Your task to perform on an android device: turn notification dots on Image 0: 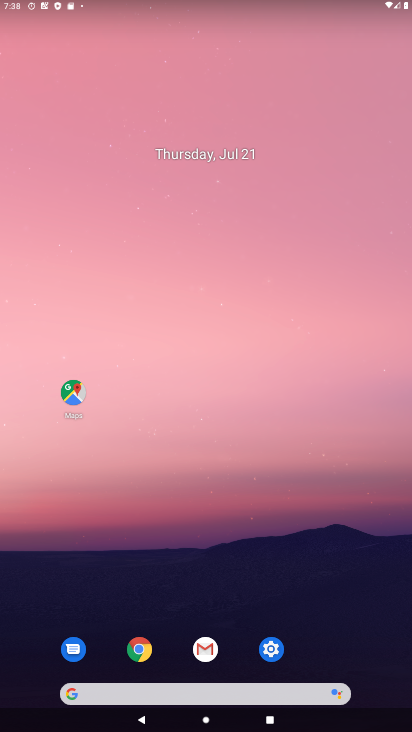
Step 0: click (278, 648)
Your task to perform on an android device: turn notification dots on Image 1: 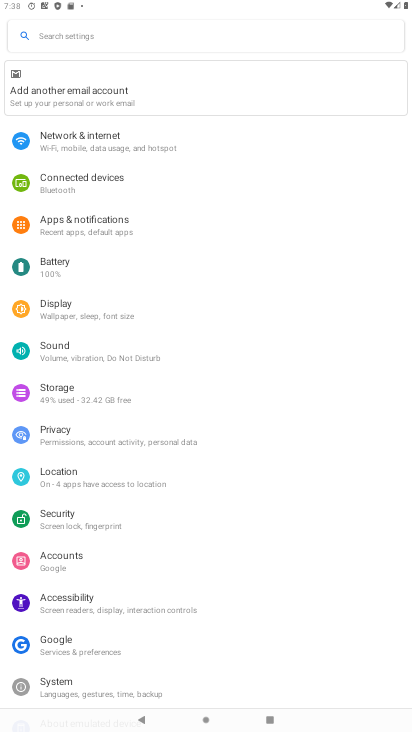
Step 1: click (75, 41)
Your task to perform on an android device: turn notification dots on Image 2: 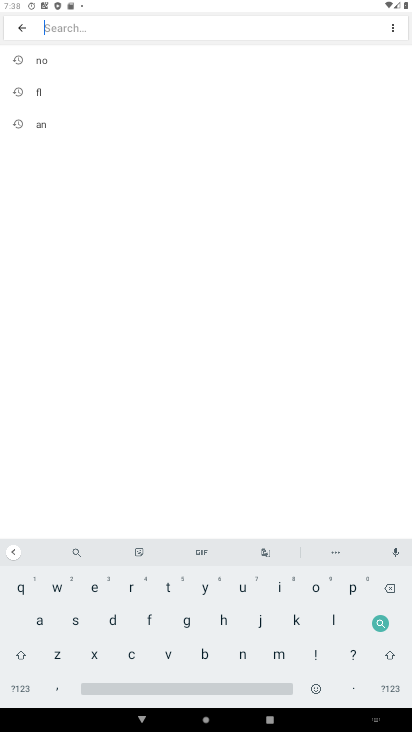
Step 2: click (241, 658)
Your task to perform on an android device: turn notification dots on Image 3: 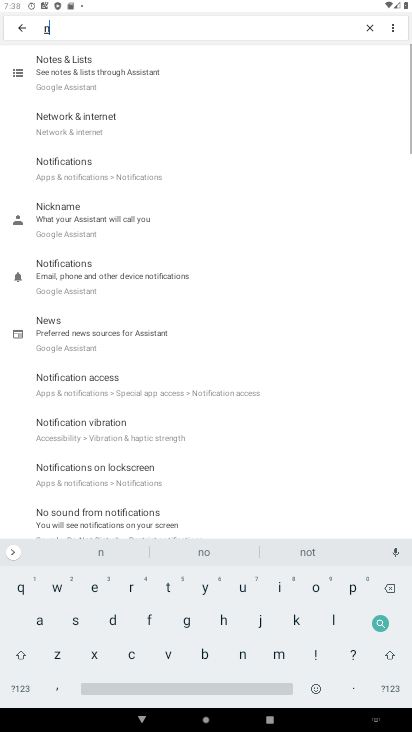
Step 3: click (314, 581)
Your task to perform on an android device: turn notification dots on Image 4: 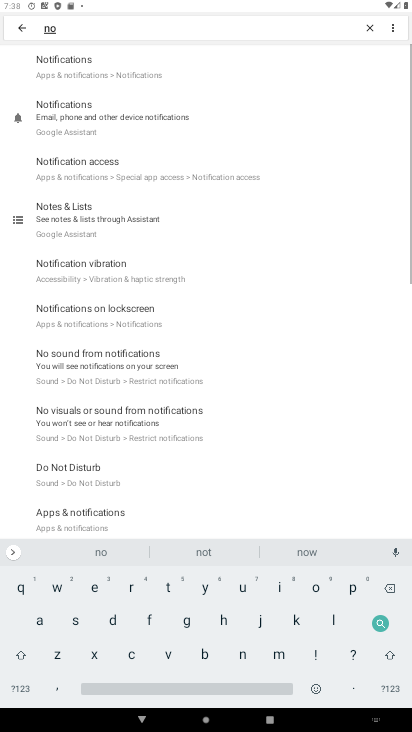
Step 4: click (91, 81)
Your task to perform on an android device: turn notification dots on Image 5: 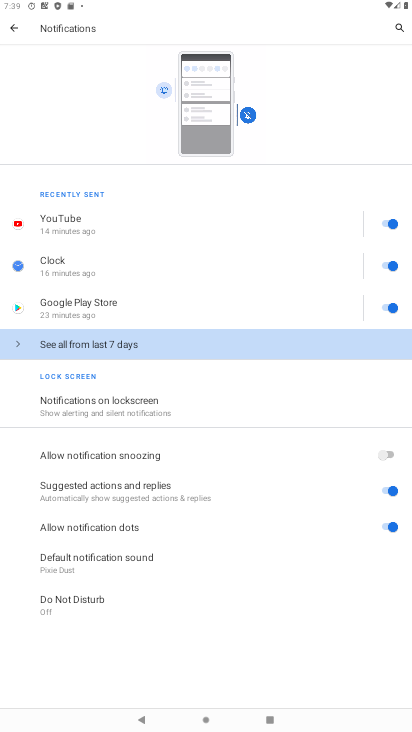
Step 5: click (229, 525)
Your task to perform on an android device: turn notification dots on Image 6: 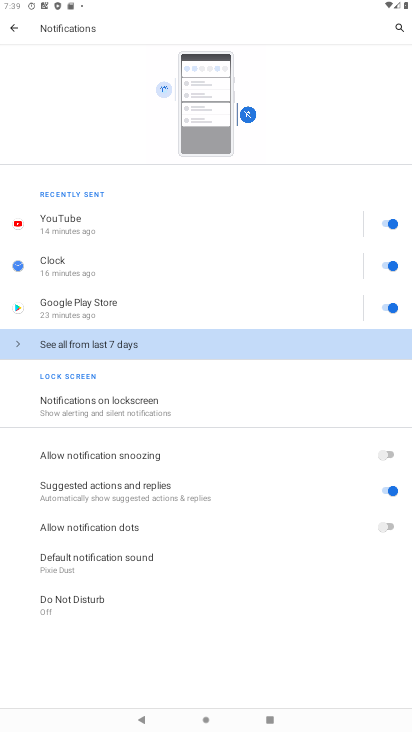
Step 6: click (229, 525)
Your task to perform on an android device: turn notification dots on Image 7: 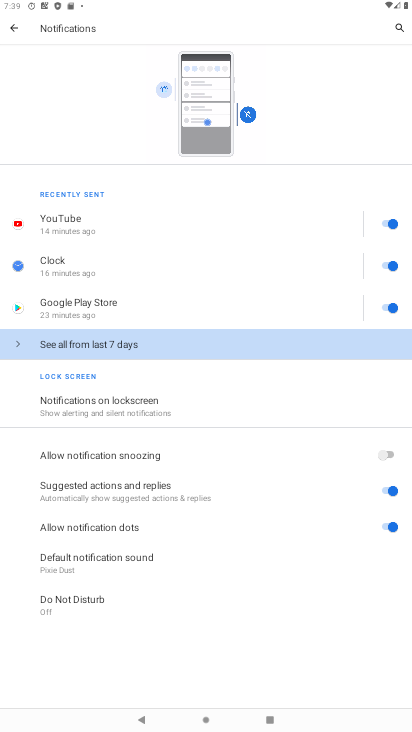
Step 7: task complete